Your task to perform on an android device: change the upload size in google photos Image 0: 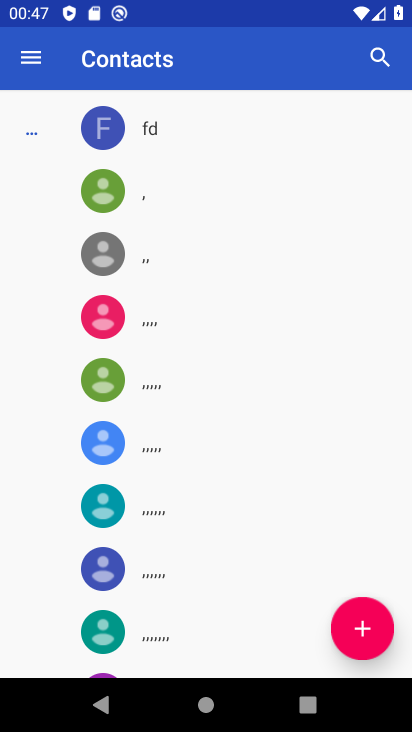
Step 0: press home button
Your task to perform on an android device: change the upload size in google photos Image 1: 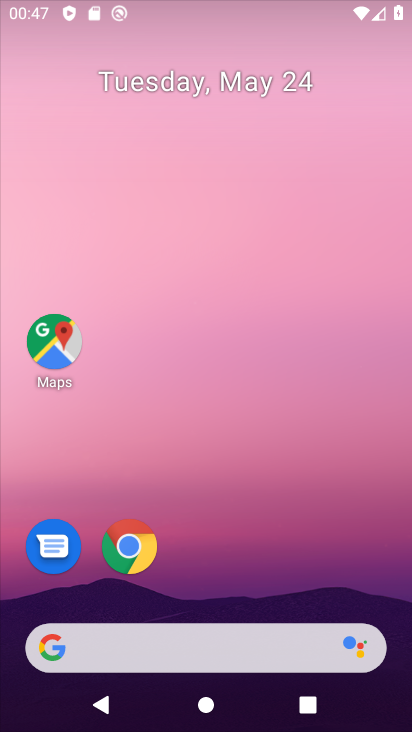
Step 1: drag from (287, 668) to (287, 22)
Your task to perform on an android device: change the upload size in google photos Image 2: 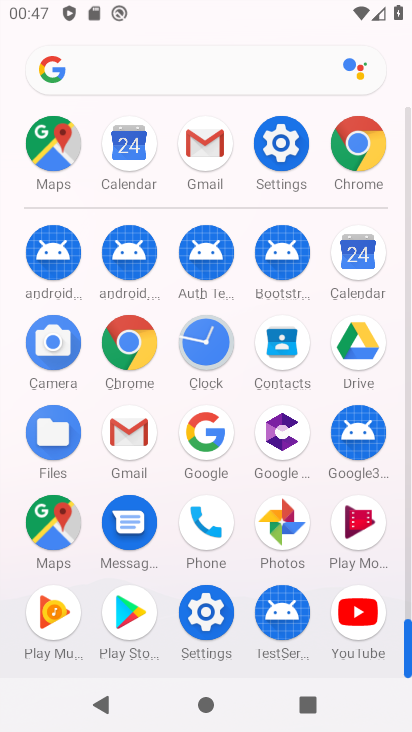
Step 2: click (286, 528)
Your task to perform on an android device: change the upload size in google photos Image 3: 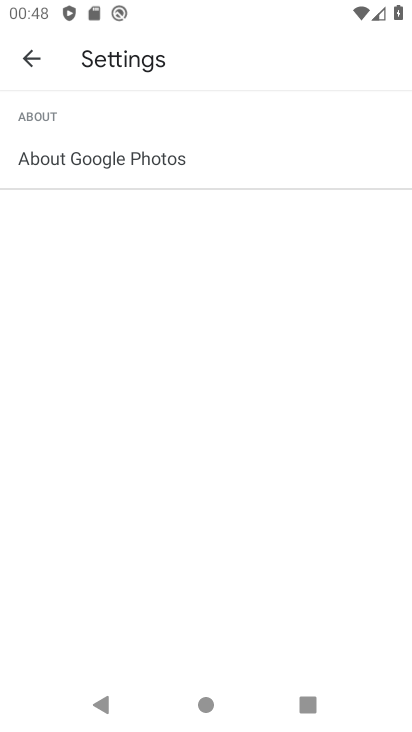
Step 3: press back button
Your task to perform on an android device: change the upload size in google photos Image 4: 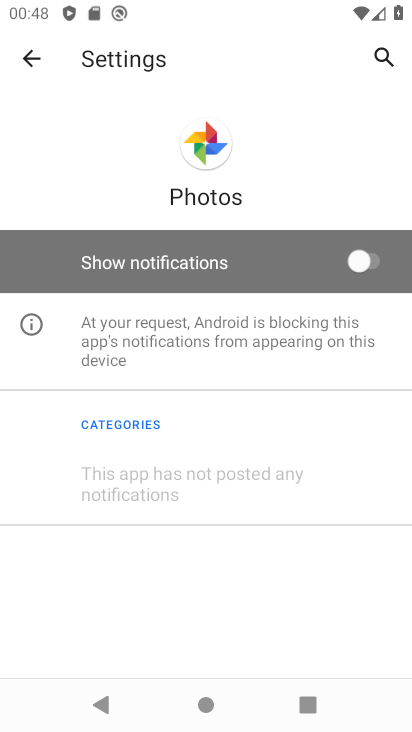
Step 4: press back button
Your task to perform on an android device: change the upload size in google photos Image 5: 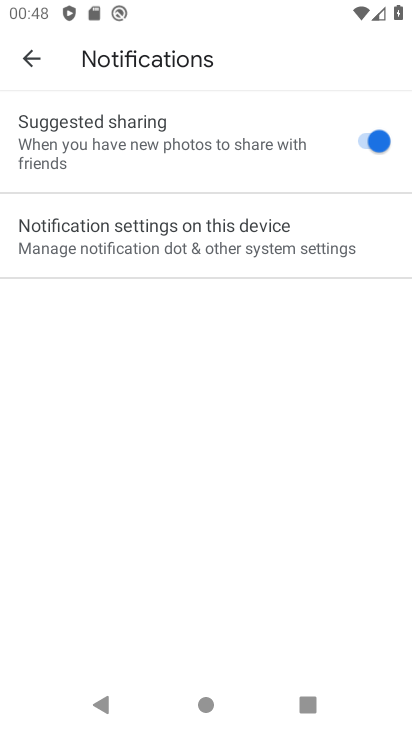
Step 5: press back button
Your task to perform on an android device: change the upload size in google photos Image 6: 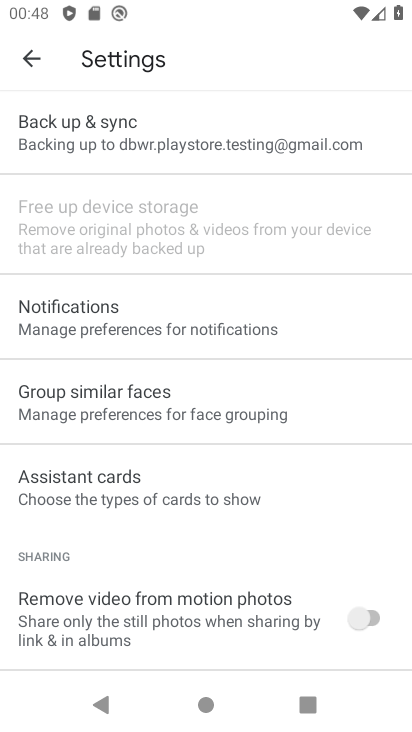
Step 6: press back button
Your task to perform on an android device: change the upload size in google photos Image 7: 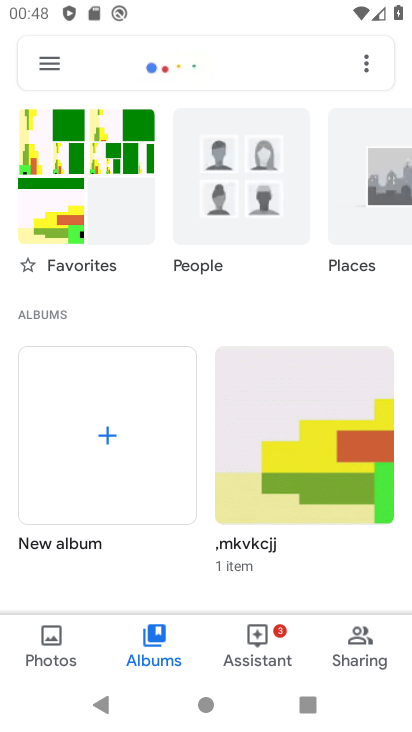
Step 7: click (59, 67)
Your task to perform on an android device: change the upload size in google photos Image 8: 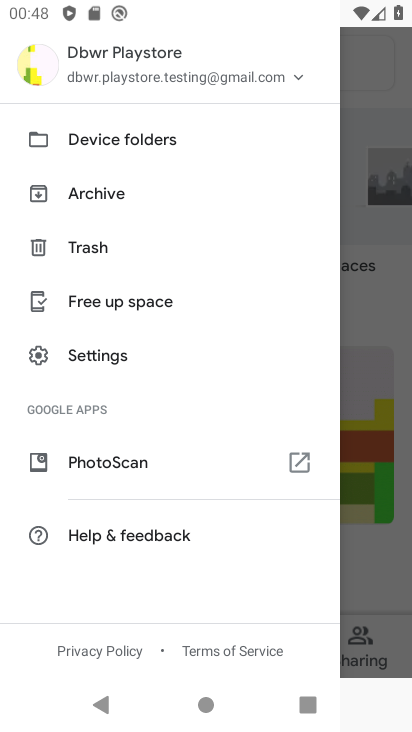
Step 8: click (157, 358)
Your task to perform on an android device: change the upload size in google photos Image 9: 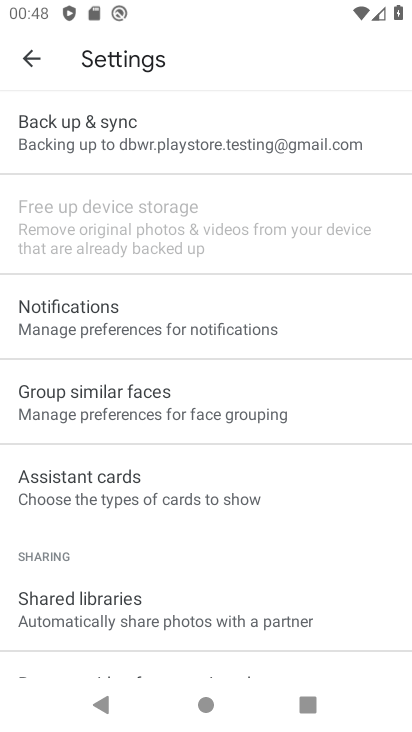
Step 9: click (125, 133)
Your task to perform on an android device: change the upload size in google photos Image 10: 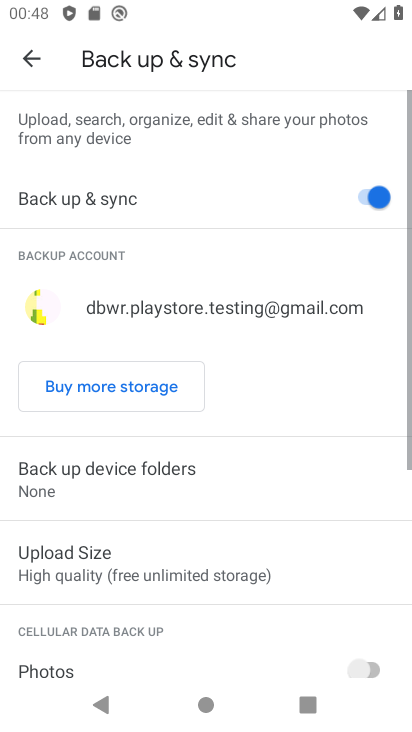
Step 10: task complete